Your task to perform on an android device: Open sound settings Image 0: 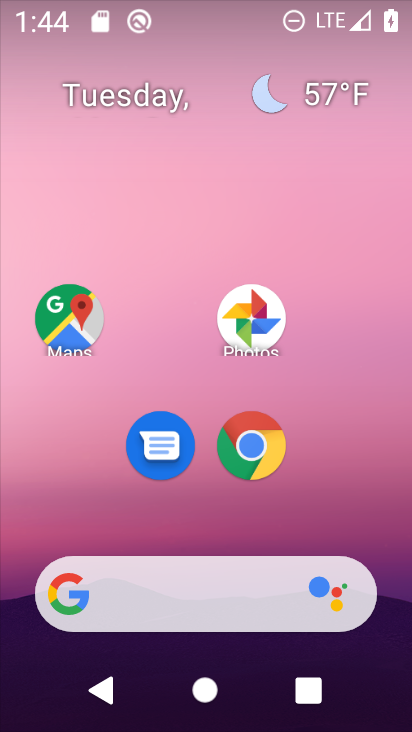
Step 0: drag from (388, 539) to (358, 187)
Your task to perform on an android device: Open sound settings Image 1: 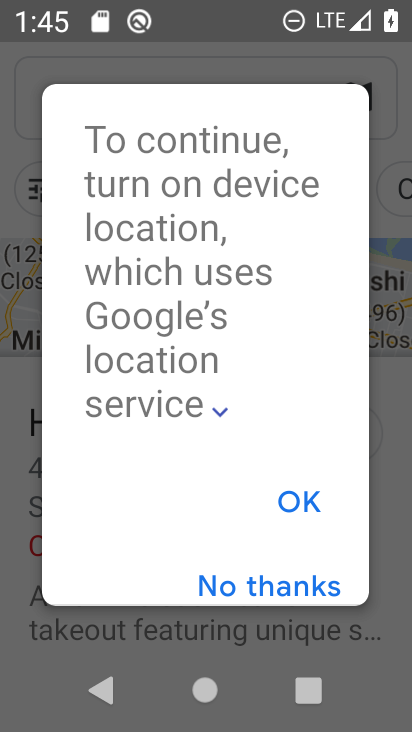
Step 1: press home button
Your task to perform on an android device: Open sound settings Image 2: 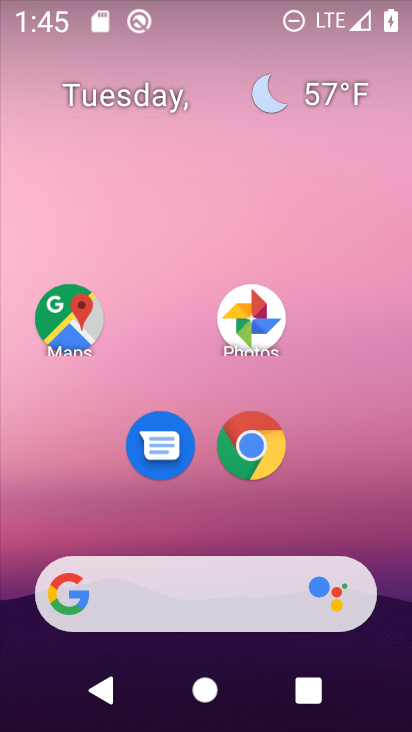
Step 2: drag from (384, 542) to (365, 206)
Your task to perform on an android device: Open sound settings Image 3: 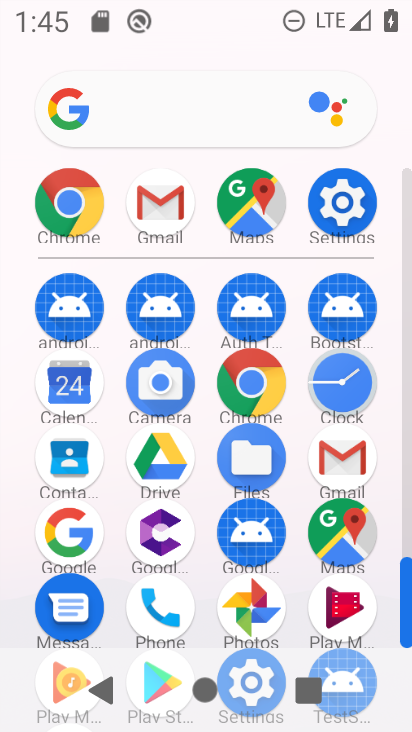
Step 3: drag from (387, 502) to (375, 241)
Your task to perform on an android device: Open sound settings Image 4: 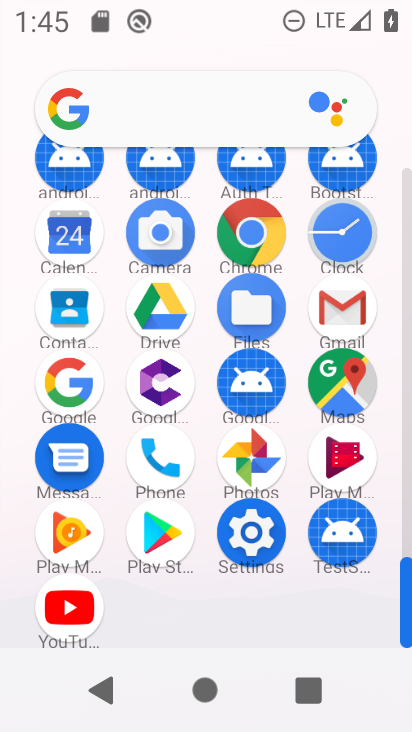
Step 4: click (246, 536)
Your task to perform on an android device: Open sound settings Image 5: 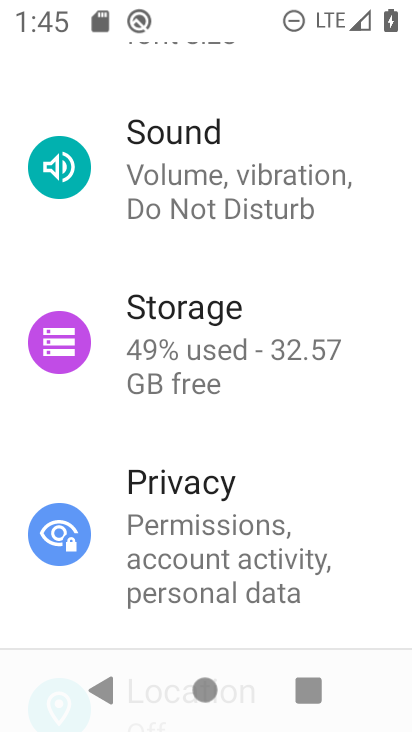
Step 5: drag from (372, 262) to (370, 408)
Your task to perform on an android device: Open sound settings Image 6: 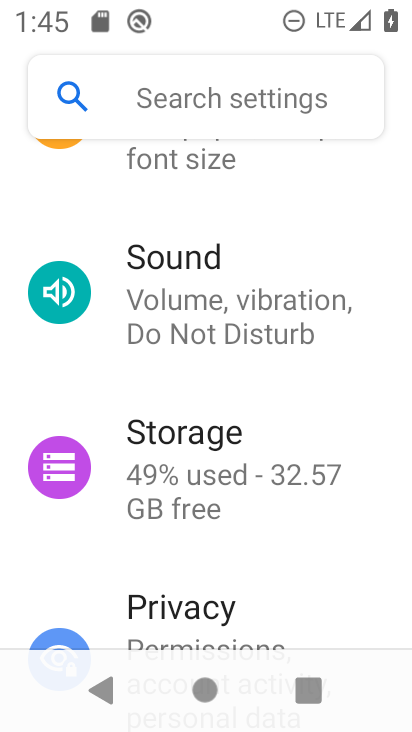
Step 6: drag from (367, 208) to (385, 509)
Your task to perform on an android device: Open sound settings Image 7: 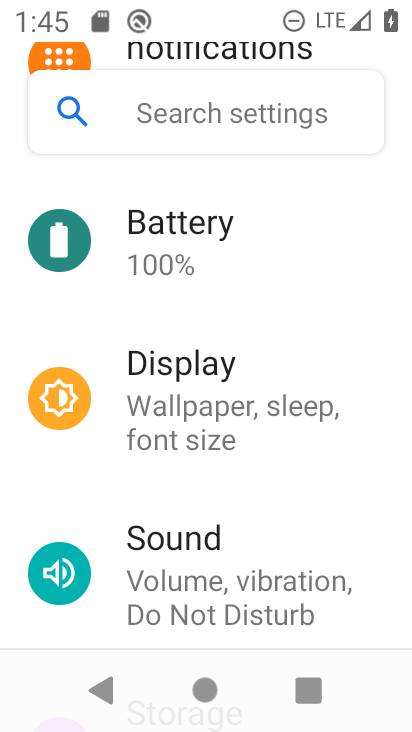
Step 7: click (215, 590)
Your task to perform on an android device: Open sound settings Image 8: 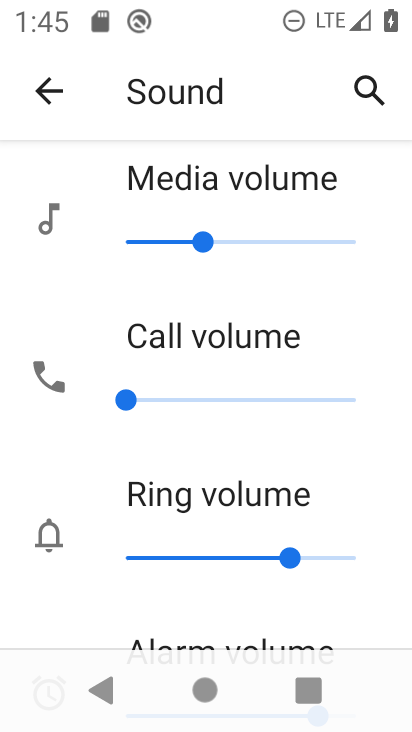
Step 8: task complete